Your task to perform on an android device: check the backup settings in the google photos Image 0: 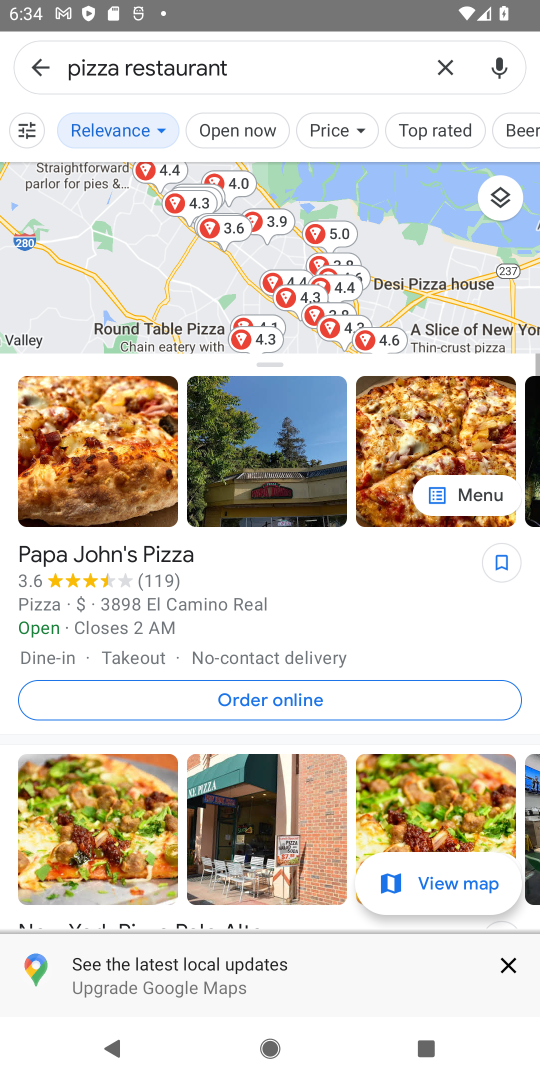
Step 0: press home button
Your task to perform on an android device: check the backup settings in the google photos Image 1: 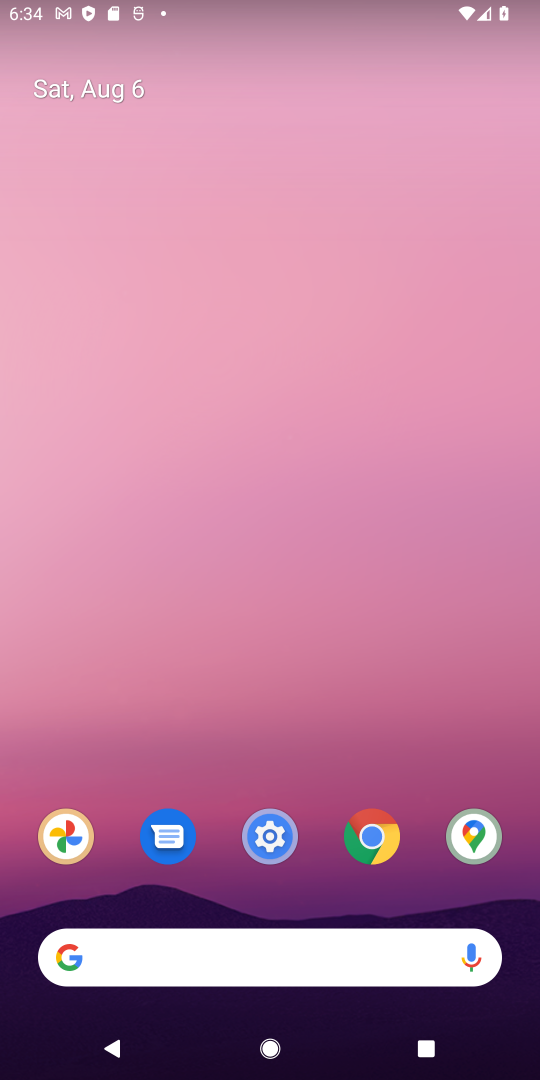
Step 1: drag from (497, 897) to (239, 57)
Your task to perform on an android device: check the backup settings in the google photos Image 2: 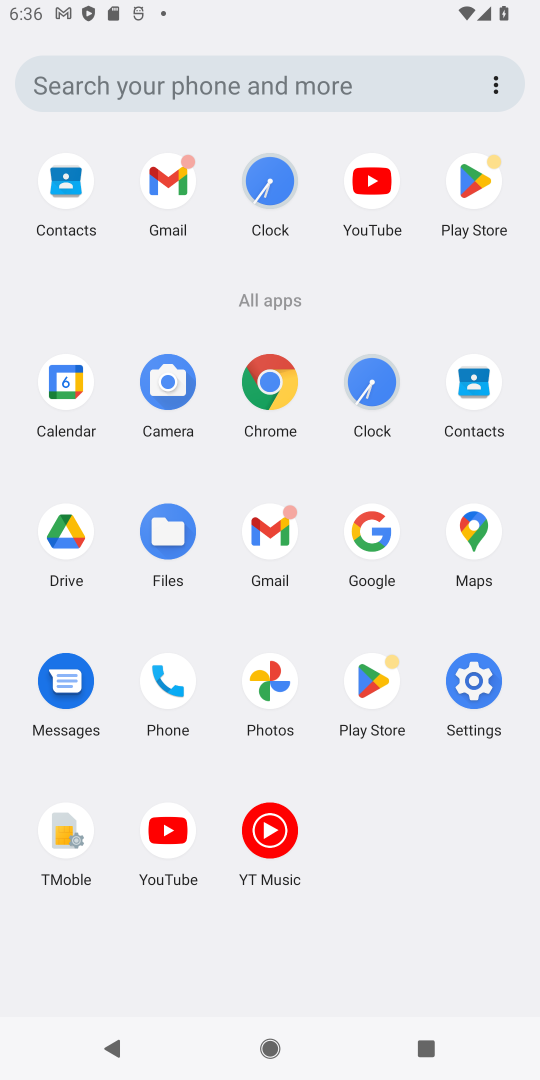
Step 2: click (274, 680)
Your task to perform on an android device: check the backup settings in the google photos Image 3: 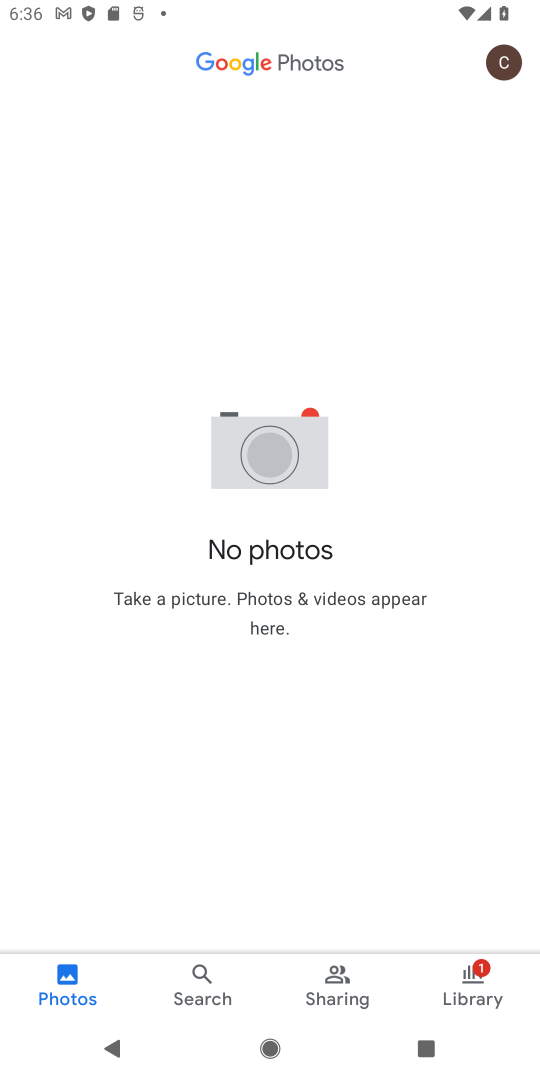
Step 3: click (505, 64)
Your task to perform on an android device: check the backup settings in the google photos Image 4: 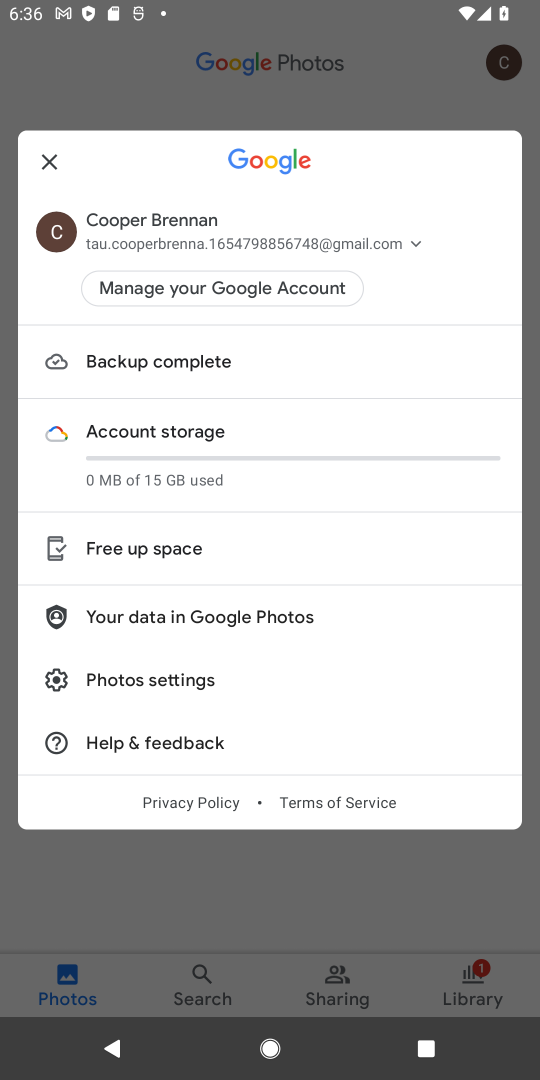
Step 4: click (173, 371)
Your task to perform on an android device: check the backup settings in the google photos Image 5: 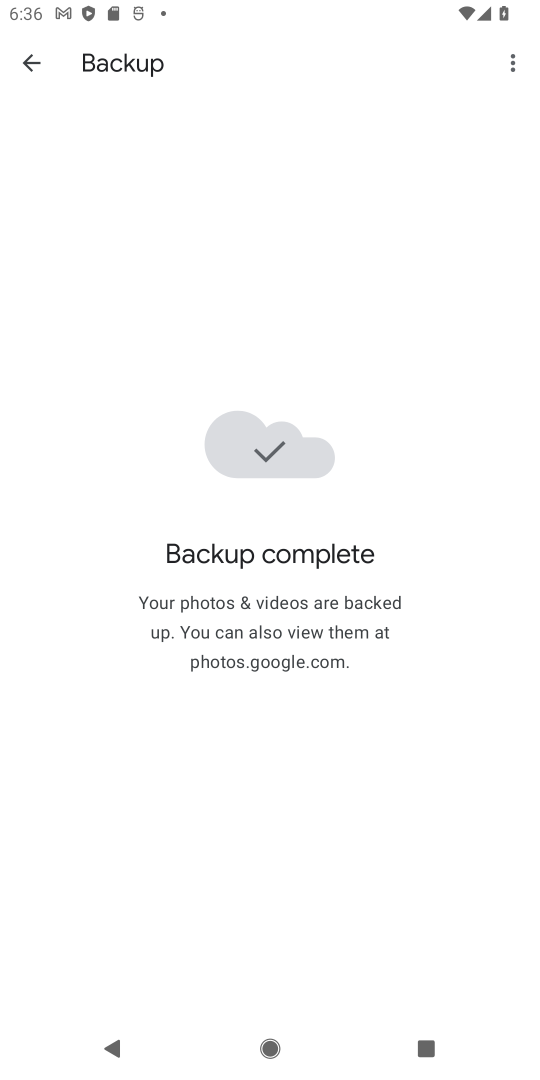
Step 5: task complete